Your task to perform on an android device: check google app version Image 0: 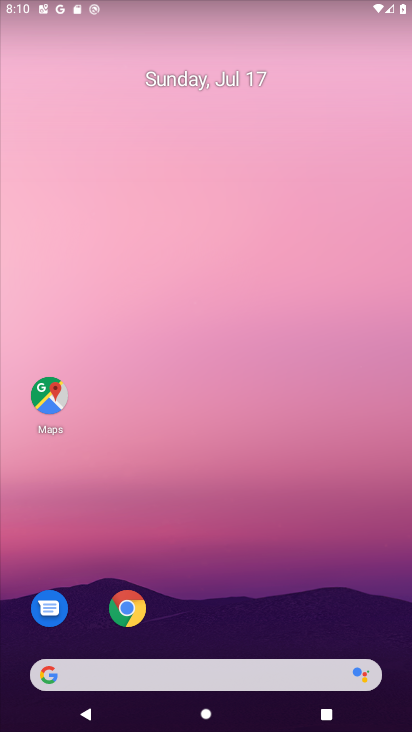
Step 0: drag from (189, 651) to (189, 184)
Your task to perform on an android device: check google app version Image 1: 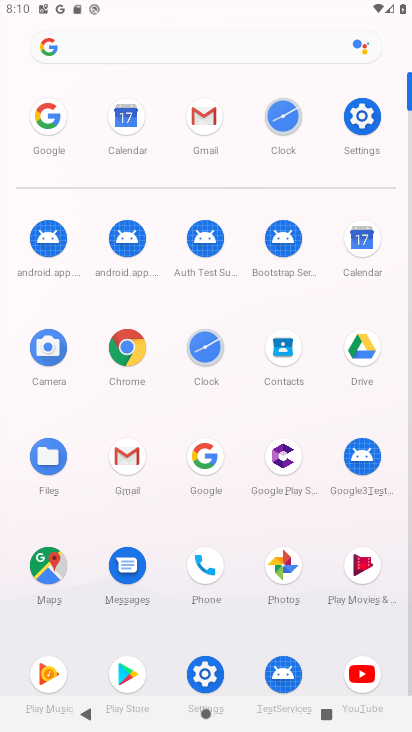
Step 1: click (209, 452)
Your task to perform on an android device: check google app version Image 2: 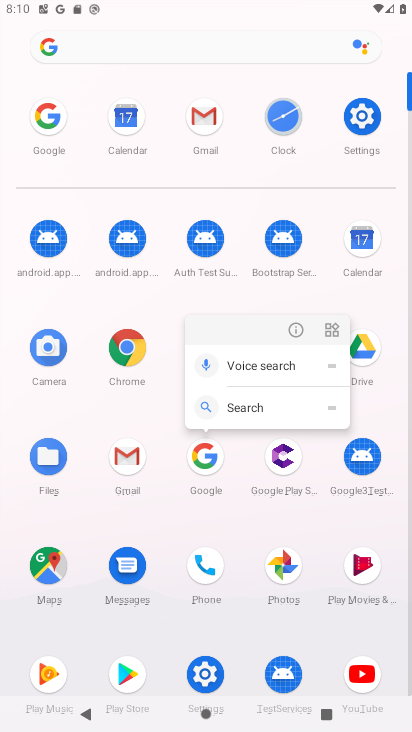
Step 2: click (296, 332)
Your task to perform on an android device: check google app version Image 3: 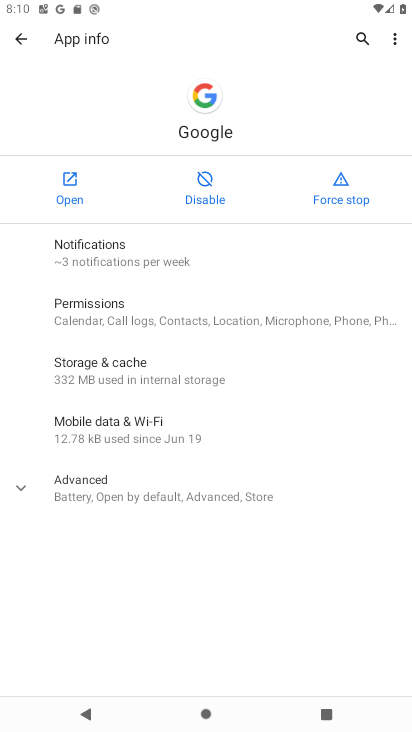
Step 3: click (62, 496)
Your task to perform on an android device: check google app version Image 4: 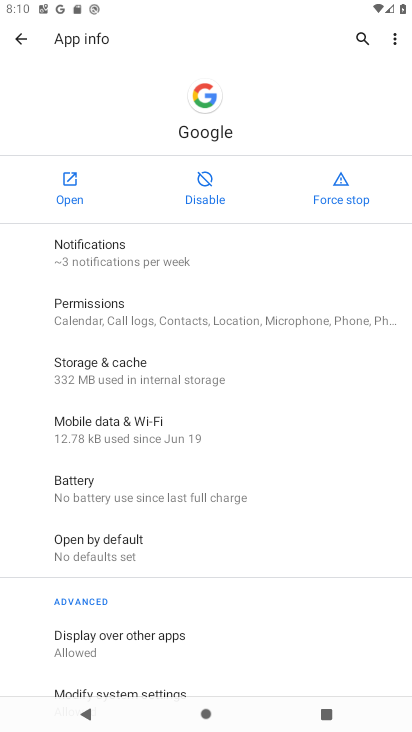
Step 4: task complete